Your task to perform on an android device: turn on bluetooth scan Image 0: 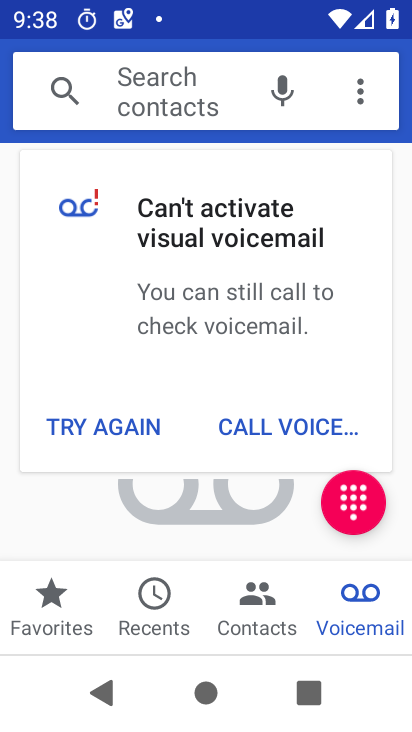
Step 0: press home button
Your task to perform on an android device: turn on bluetooth scan Image 1: 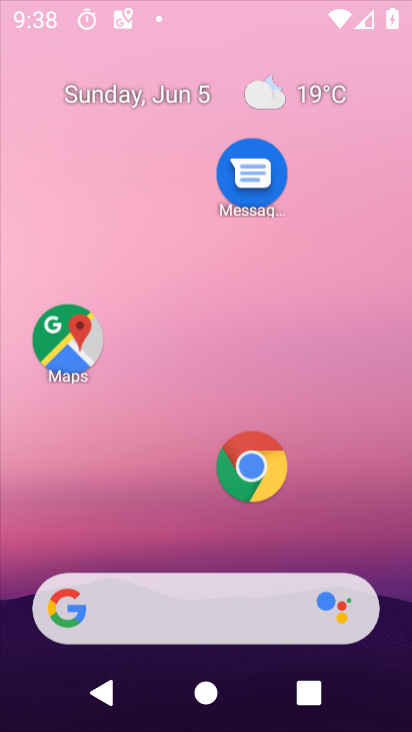
Step 1: drag from (228, 522) to (325, 45)
Your task to perform on an android device: turn on bluetooth scan Image 2: 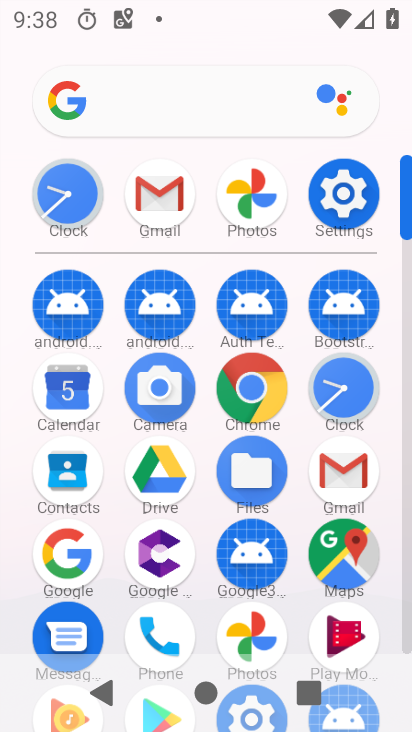
Step 2: click (332, 194)
Your task to perform on an android device: turn on bluetooth scan Image 3: 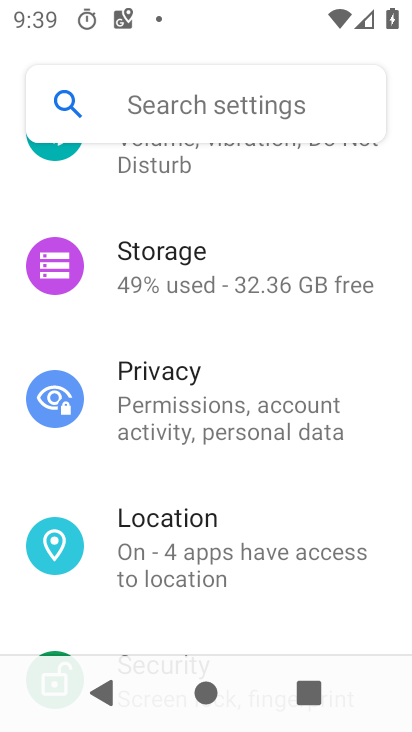
Step 3: drag from (234, 272) to (307, 729)
Your task to perform on an android device: turn on bluetooth scan Image 4: 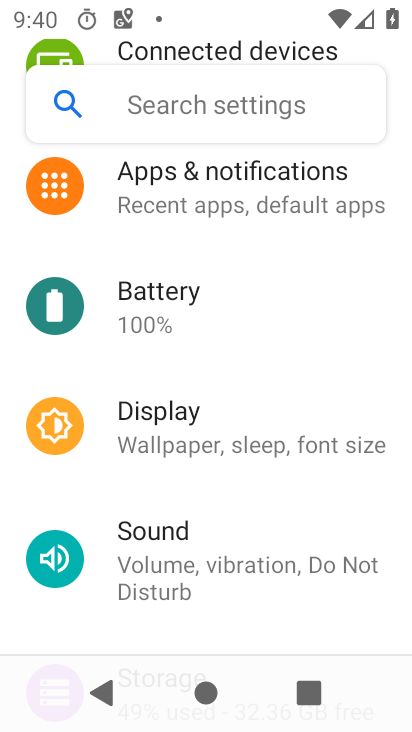
Step 4: drag from (246, 343) to (388, 730)
Your task to perform on an android device: turn on bluetooth scan Image 5: 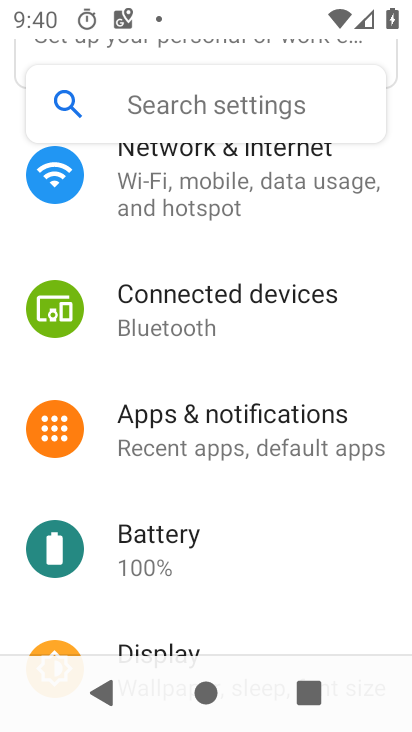
Step 5: drag from (242, 608) to (304, 12)
Your task to perform on an android device: turn on bluetooth scan Image 6: 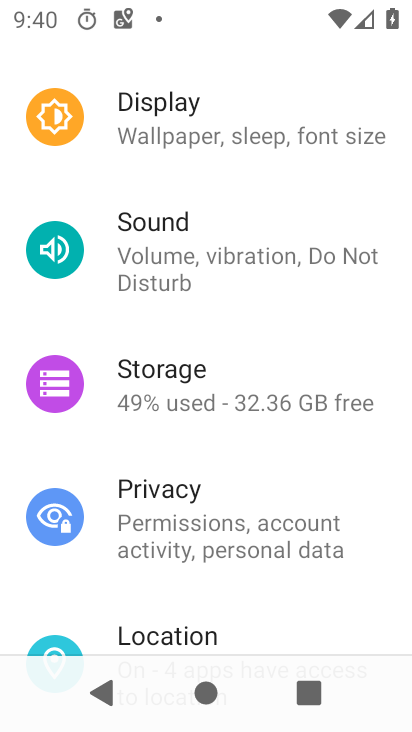
Step 6: drag from (214, 592) to (245, 68)
Your task to perform on an android device: turn on bluetooth scan Image 7: 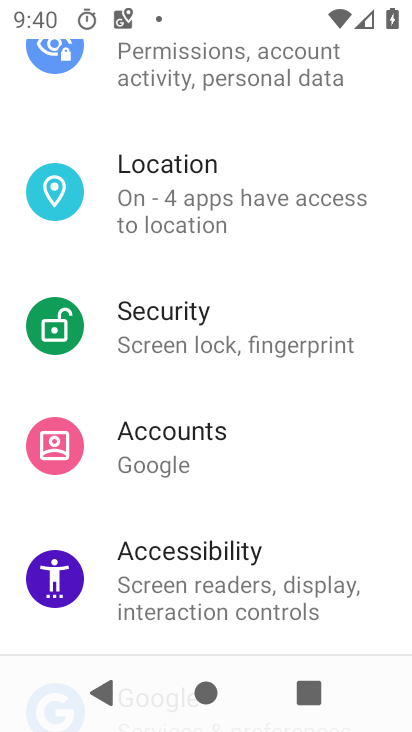
Step 7: drag from (211, 496) to (285, 125)
Your task to perform on an android device: turn on bluetooth scan Image 8: 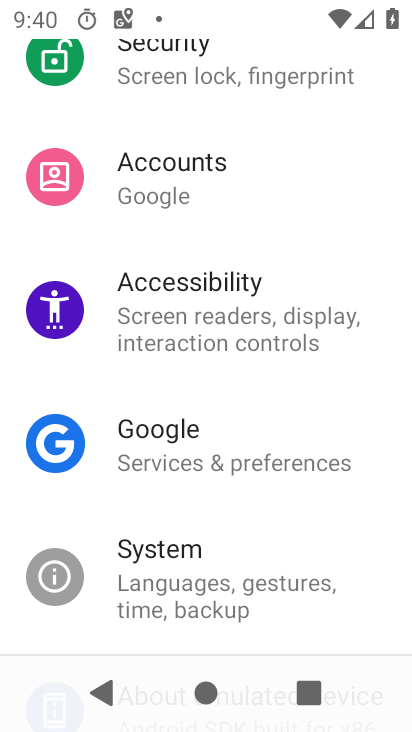
Step 8: drag from (272, 254) to (334, 730)
Your task to perform on an android device: turn on bluetooth scan Image 9: 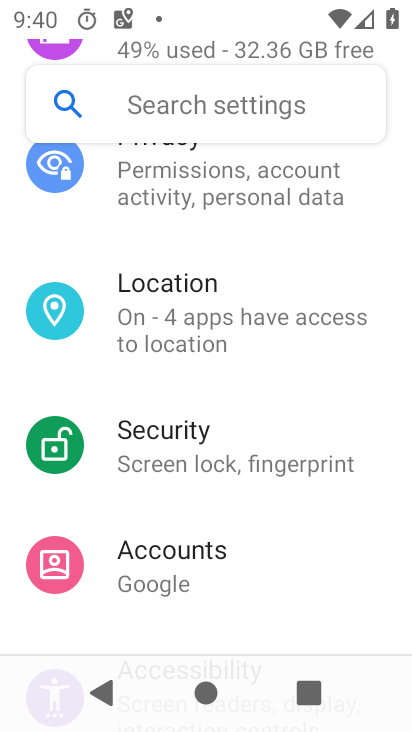
Step 9: drag from (208, 250) to (321, 689)
Your task to perform on an android device: turn on bluetooth scan Image 10: 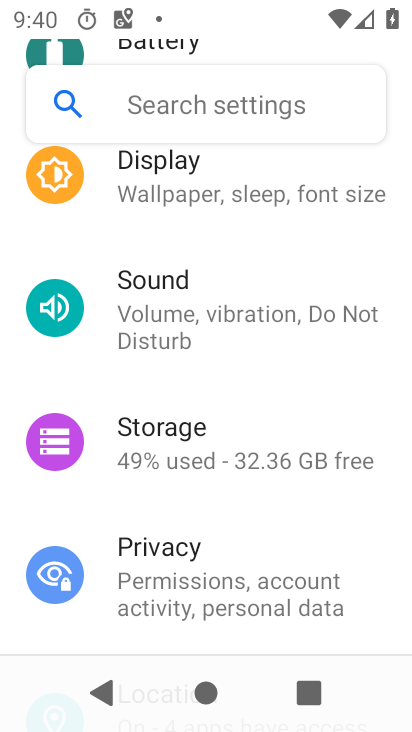
Step 10: drag from (235, 284) to (320, 680)
Your task to perform on an android device: turn on bluetooth scan Image 11: 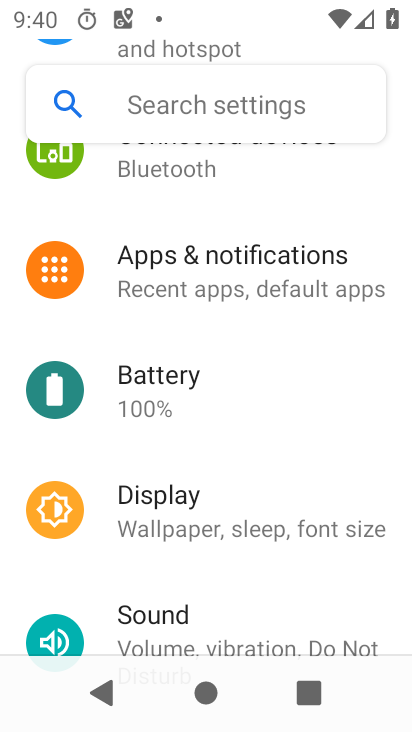
Step 11: drag from (190, 553) to (246, 176)
Your task to perform on an android device: turn on bluetooth scan Image 12: 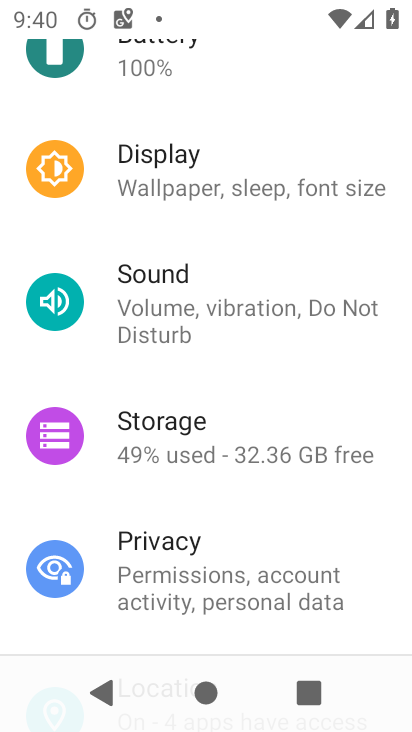
Step 12: drag from (202, 503) to (302, 87)
Your task to perform on an android device: turn on bluetooth scan Image 13: 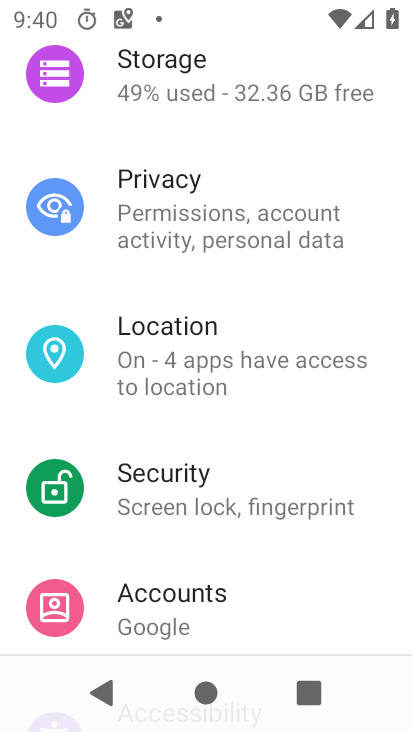
Step 13: click (244, 351)
Your task to perform on an android device: turn on bluetooth scan Image 14: 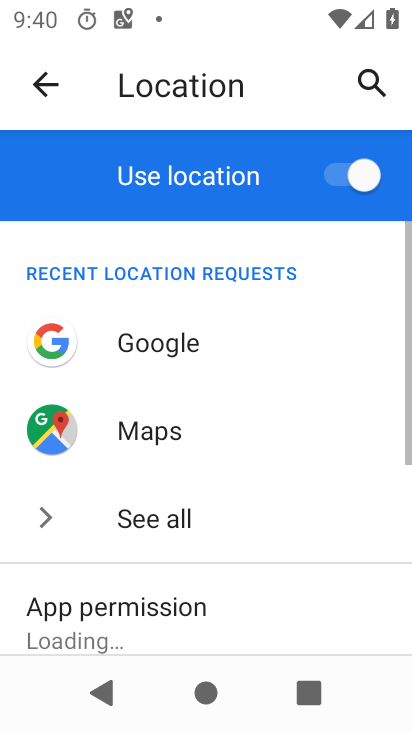
Step 14: drag from (178, 529) to (273, 23)
Your task to perform on an android device: turn on bluetooth scan Image 15: 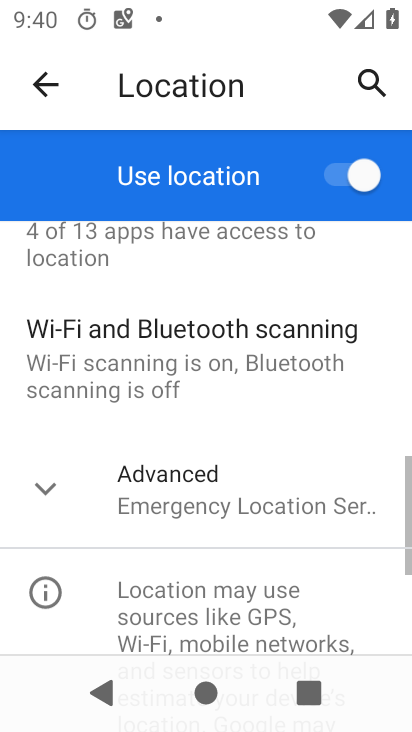
Step 15: click (201, 363)
Your task to perform on an android device: turn on bluetooth scan Image 16: 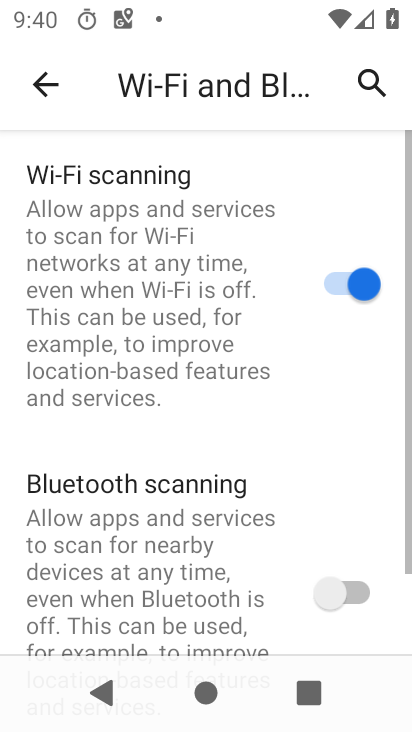
Step 16: drag from (225, 597) to (259, 204)
Your task to perform on an android device: turn on bluetooth scan Image 17: 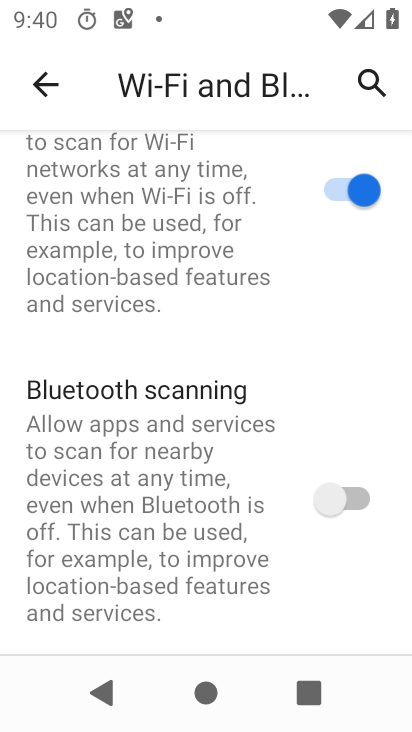
Step 17: click (249, 496)
Your task to perform on an android device: turn on bluetooth scan Image 18: 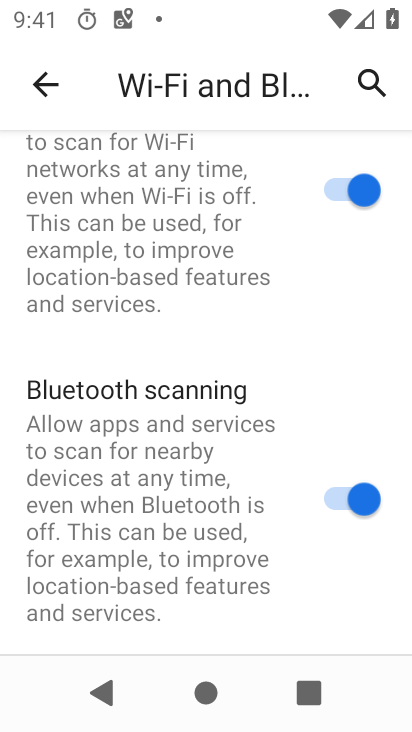
Step 18: task complete